Your task to perform on an android device: Open the stopwatch Image 0: 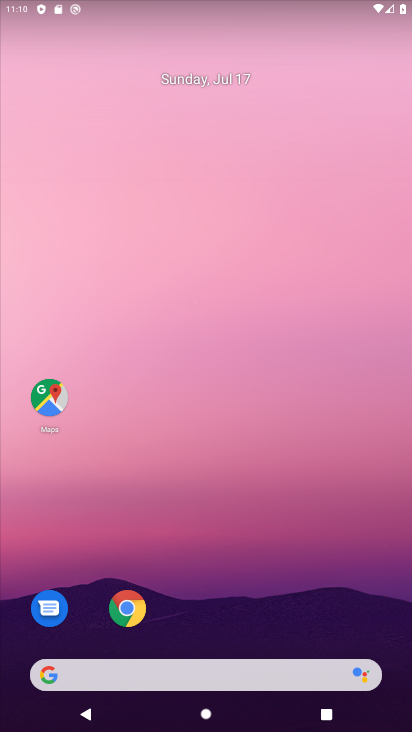
Step 0: drag from (260, 621) to (224, 14)
Your task to perform on an android device: Open the stopwatch Image 1: 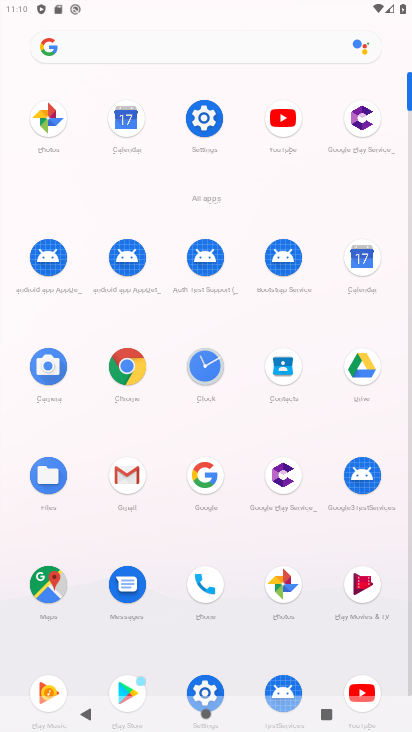
Step 1: click (202, 359)
Your task to perform on an android device: Open the stopwatch Image 2: 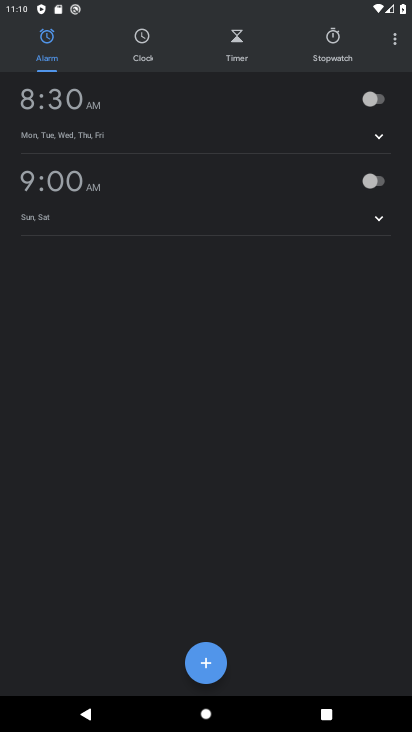
Step 2: click (326, 60)
Your task to perform on an android device: Open the stopwatch Image 3: 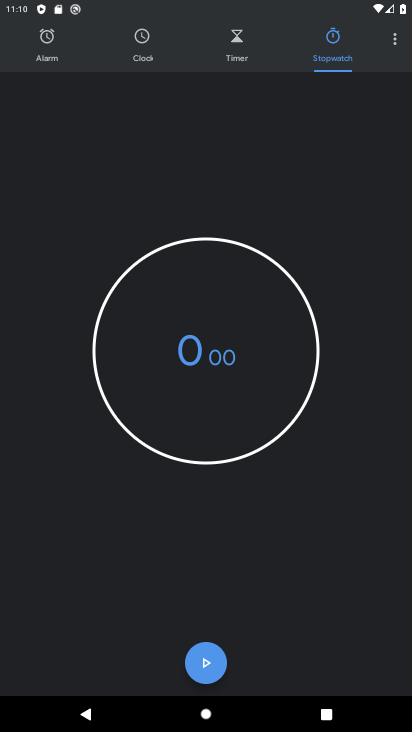
Step 3: click (201, 666)
Your task to perform on an android device: Open the stopwatch Image 4: 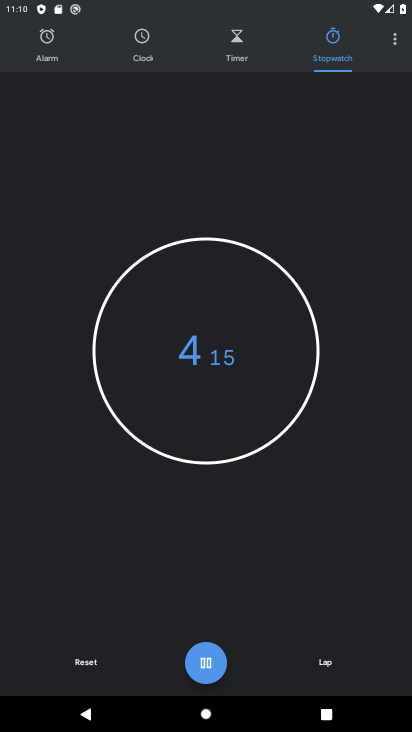
Step 4: task complete